Your task to perform on an android device: Clear the shopping cart on amazon.com. Search for dell xps on amazon.com, select the first entry, and add it to the cart. Image 0: 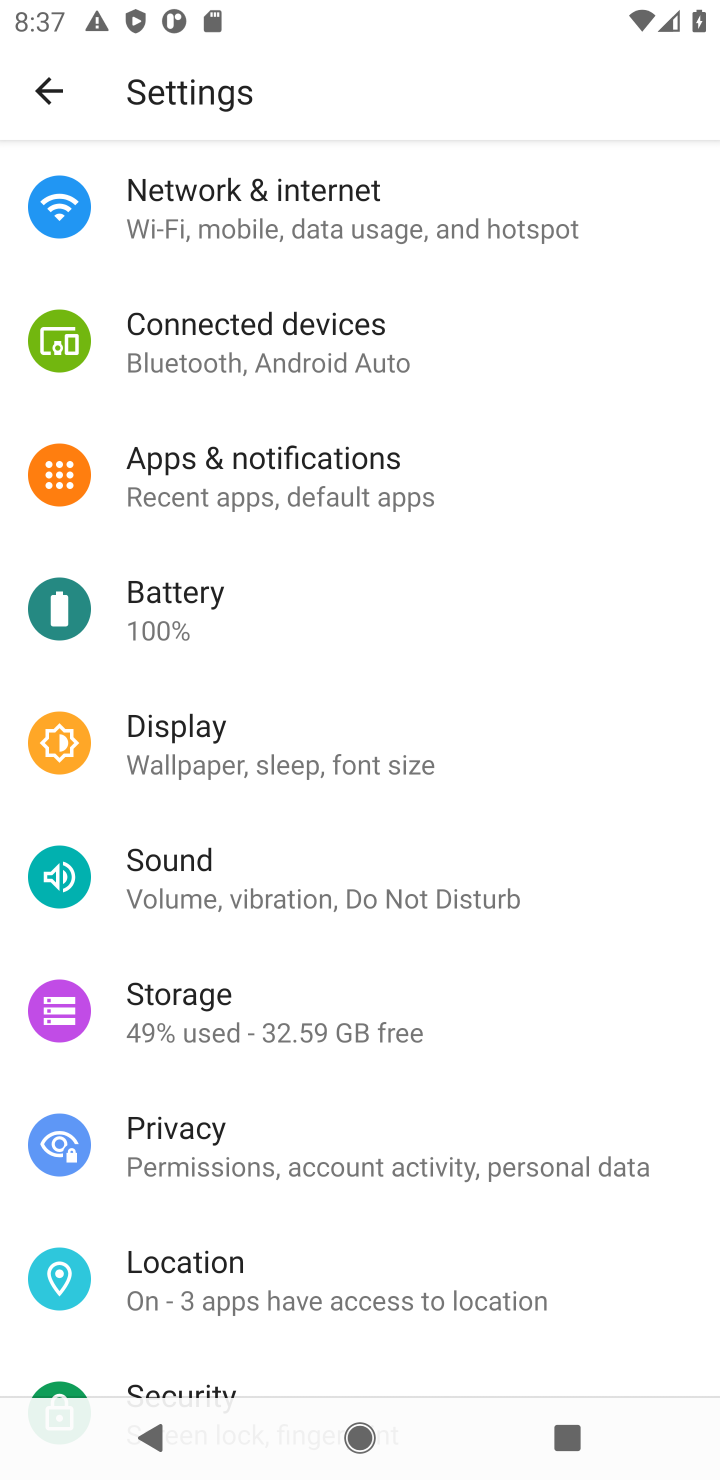
Step 0: press home button
Your task to perform on an android device: Clear the shopping cart on amazon.com. Search for dell xps on amazon.com, select the first entry, and add it to the cart. Image 1: 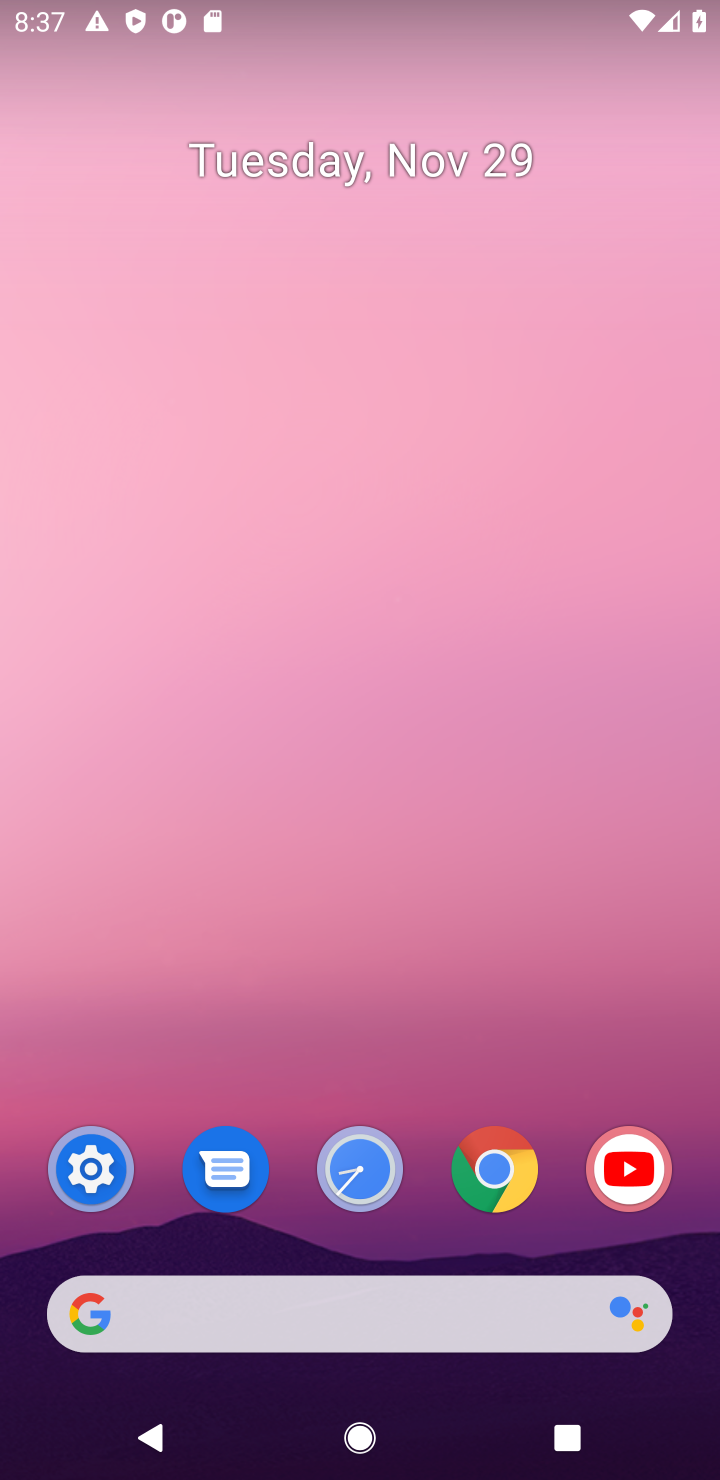
Step 1: click (465, 1310)
Your task to perform on an android device: Clear the shopping cart on amazon.com. Search for dell xps on amazon.com, select the first entry, and add it to the cart. Image 2: 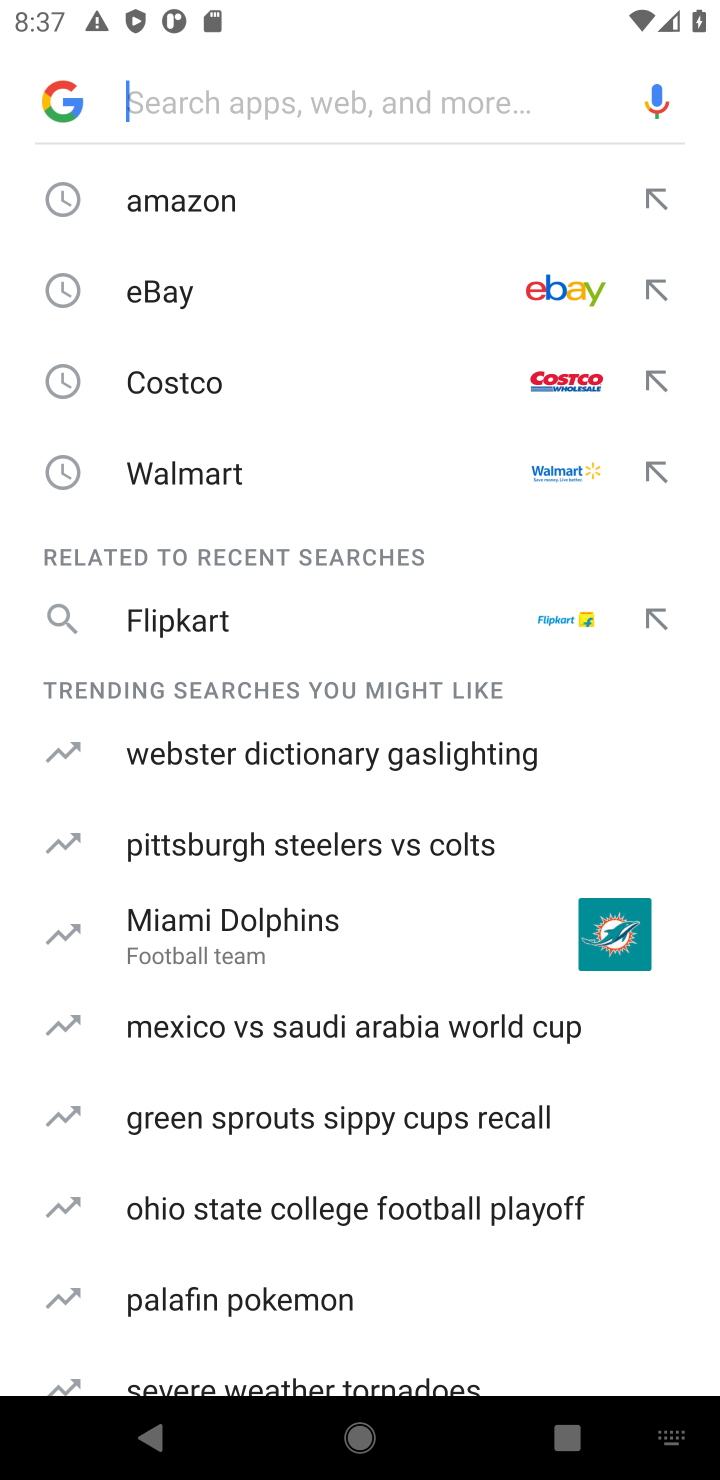
Step 2: type "amazon"
Your task to perform on an android device: Clear the shopping cart on amazon.com. Search for dell xps on amazon.com, select the first entry, and add it to the cart. Image 3: 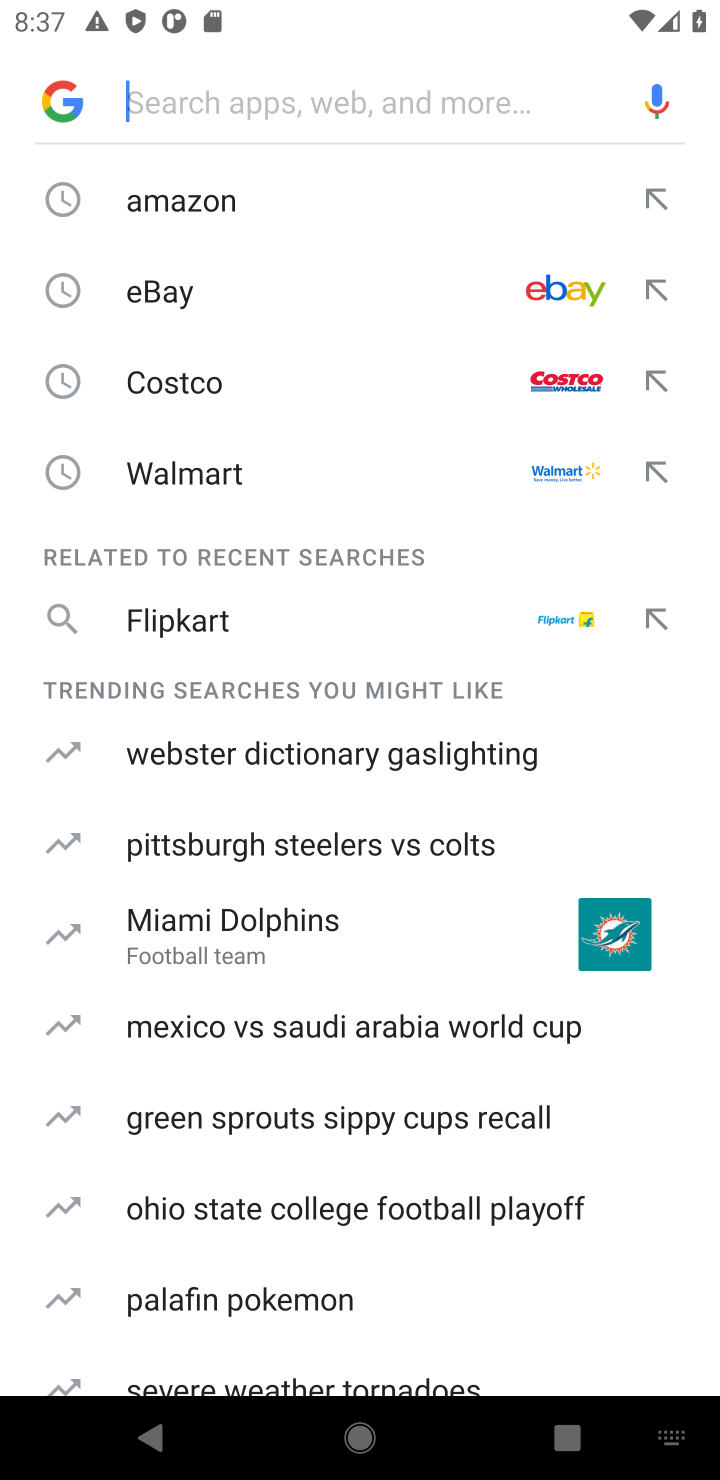
Step 3: click (230, 181)
Your task to perform on an android device: Clear the shopping cart on amazon.com. Search for dell xps on amazon.com, select the first entry, and add it to the cart. Image 4: 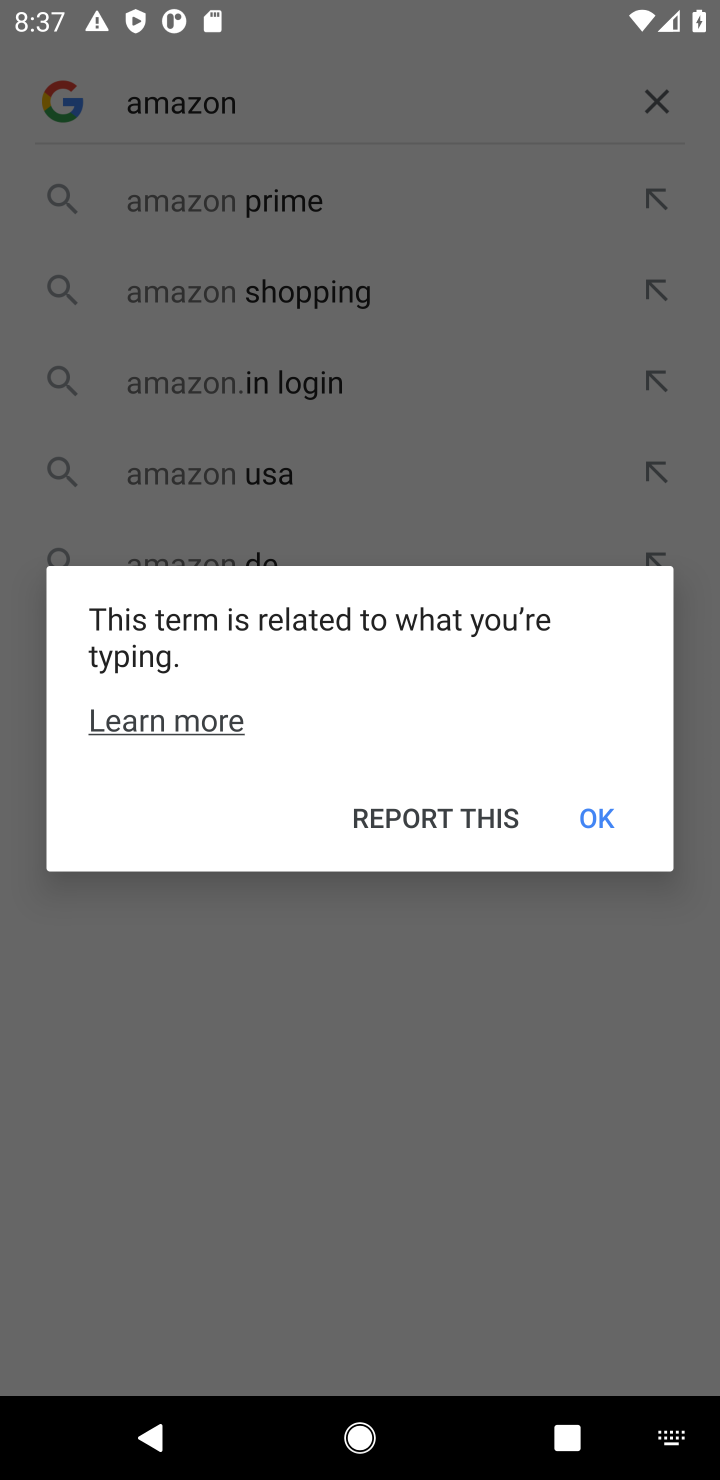
Step 4: click (580, 805)
Your task to perform on an android device: Clear the shopping cart on amazon.com. Search for dell xps on amazon.com, select the first entry, and add it to the cart. Image 5: 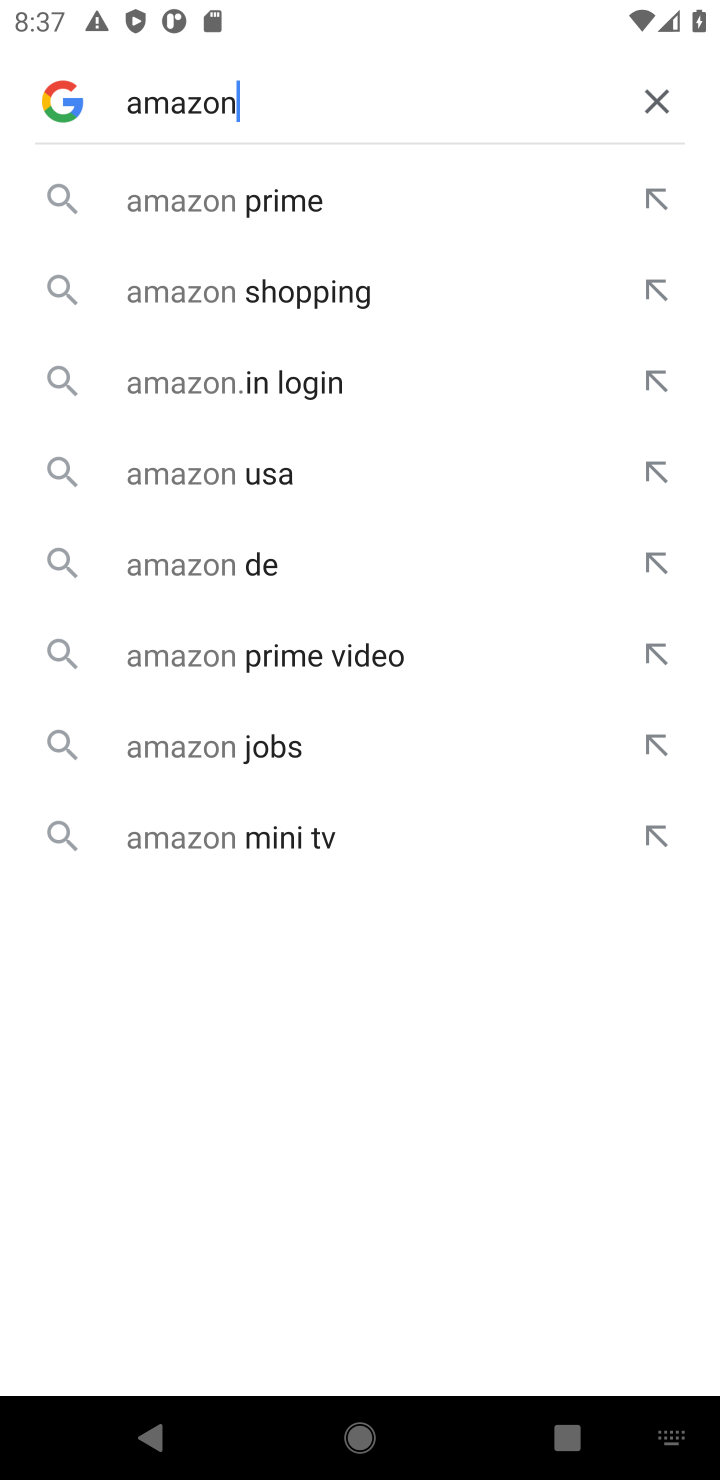
Step 5: click (215, 310)
Your task to perform on an android device: Clear the shopping cart on amazon.com. Search for dell xps on amazon.com, select the first entry, and add it to the cart. Image 6: 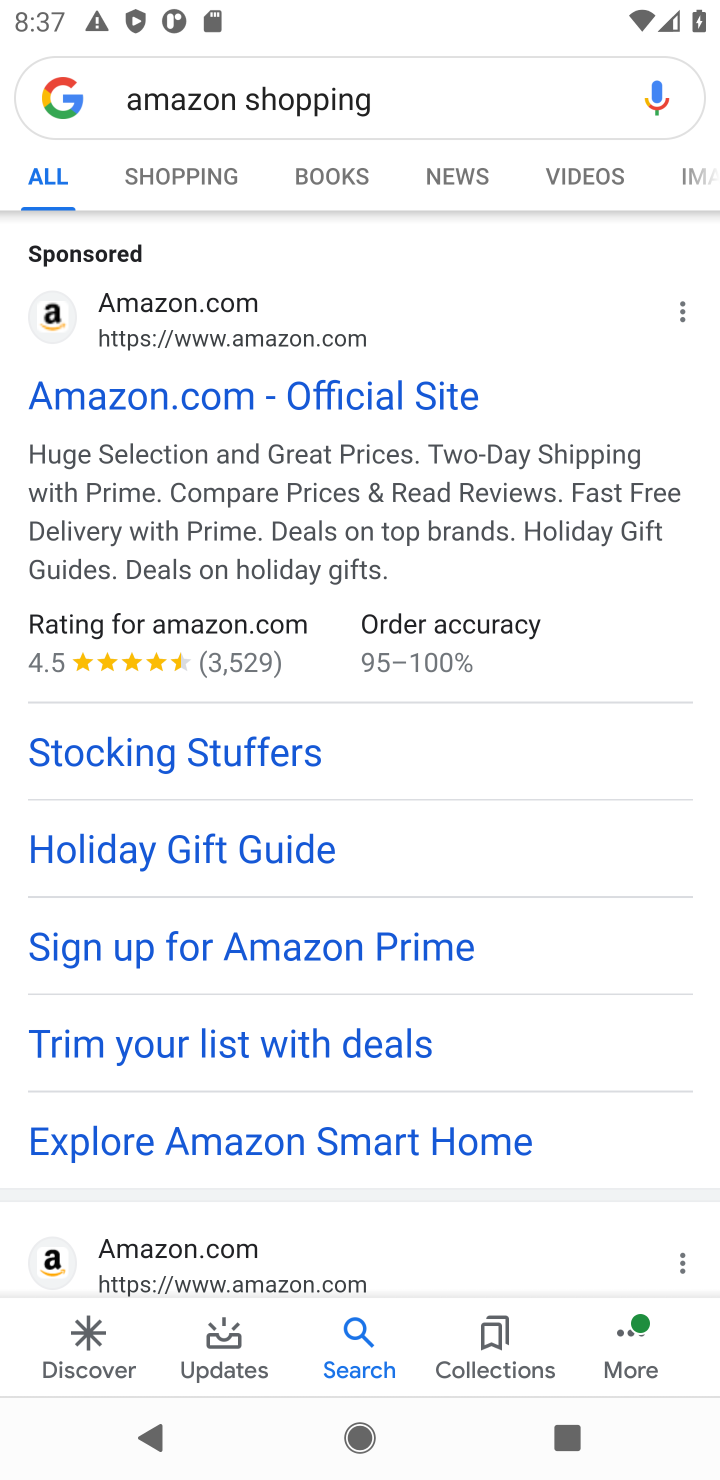
Step 6: click (193, 376)
Your task to perform on an android device: Clear the shopping cart on amazon.com. Search for dell xps on amazon.com, select the first entry, and add it to the cart. Image 7: 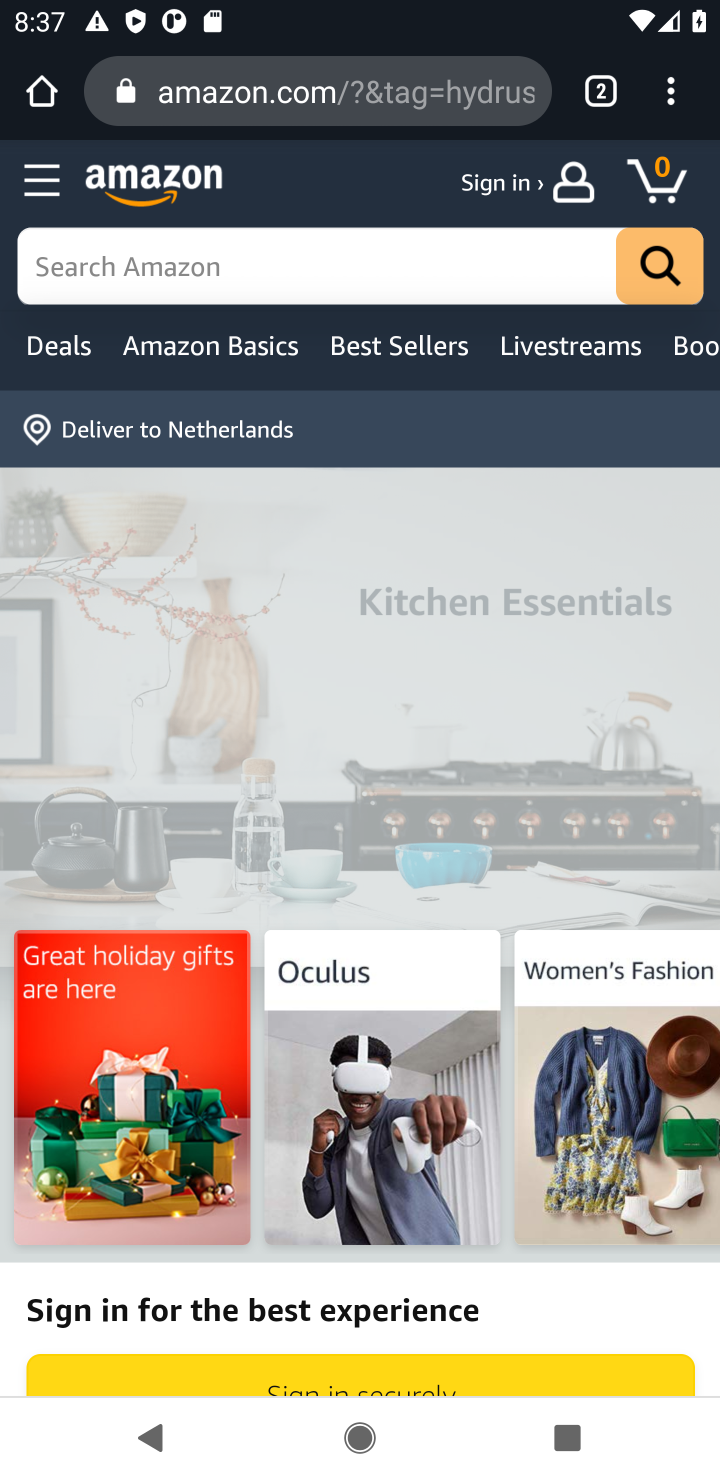
Step 7: click (303, 277)
Your task to perform on an android device: Clear the shopping cart on amazon.com. Search for dell xps on amazon.com, select the first entry, and add it to the cart. Image 8: 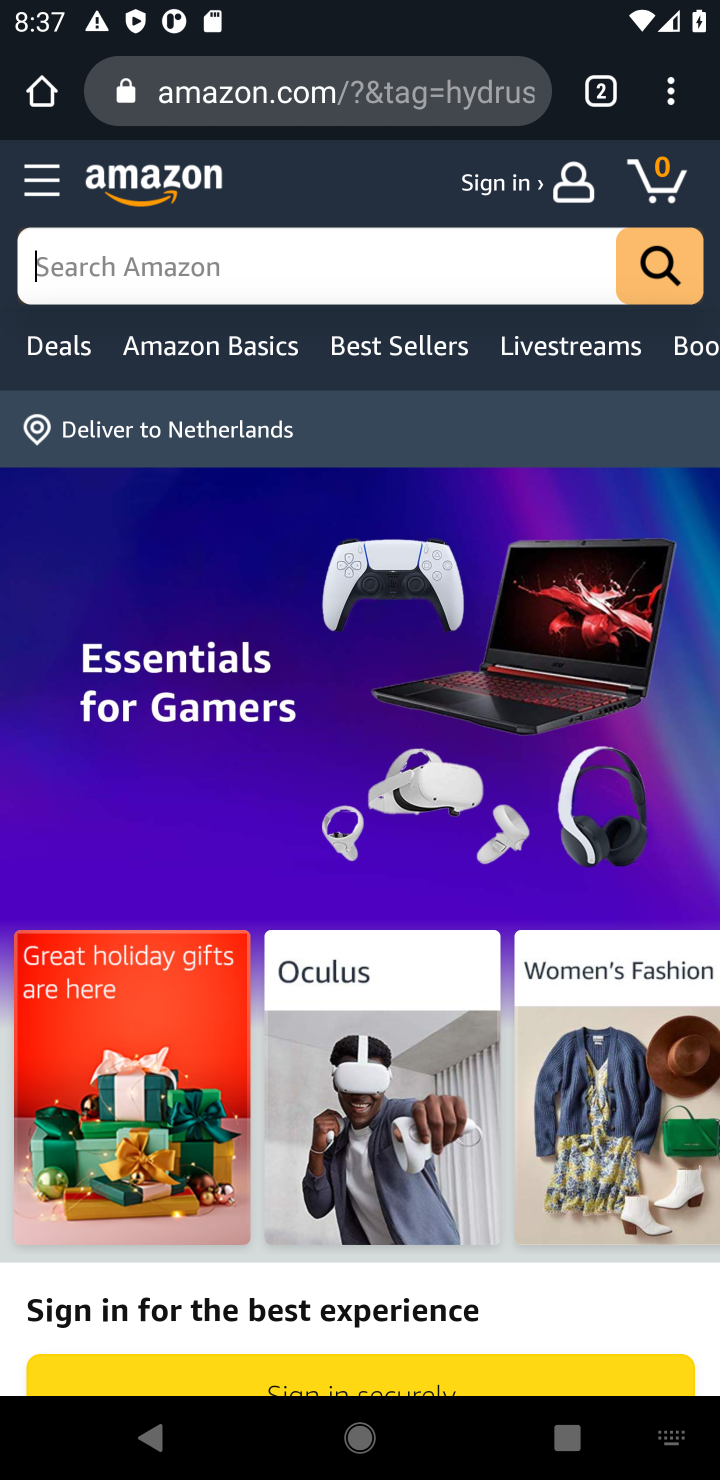
Step 8: type "dell xps"
Your task to perform on an android device: Clear the shopping cart on amazon.com. Search for dell xps on amazon.com, select the first entry, and add it to the cart. Image 9: 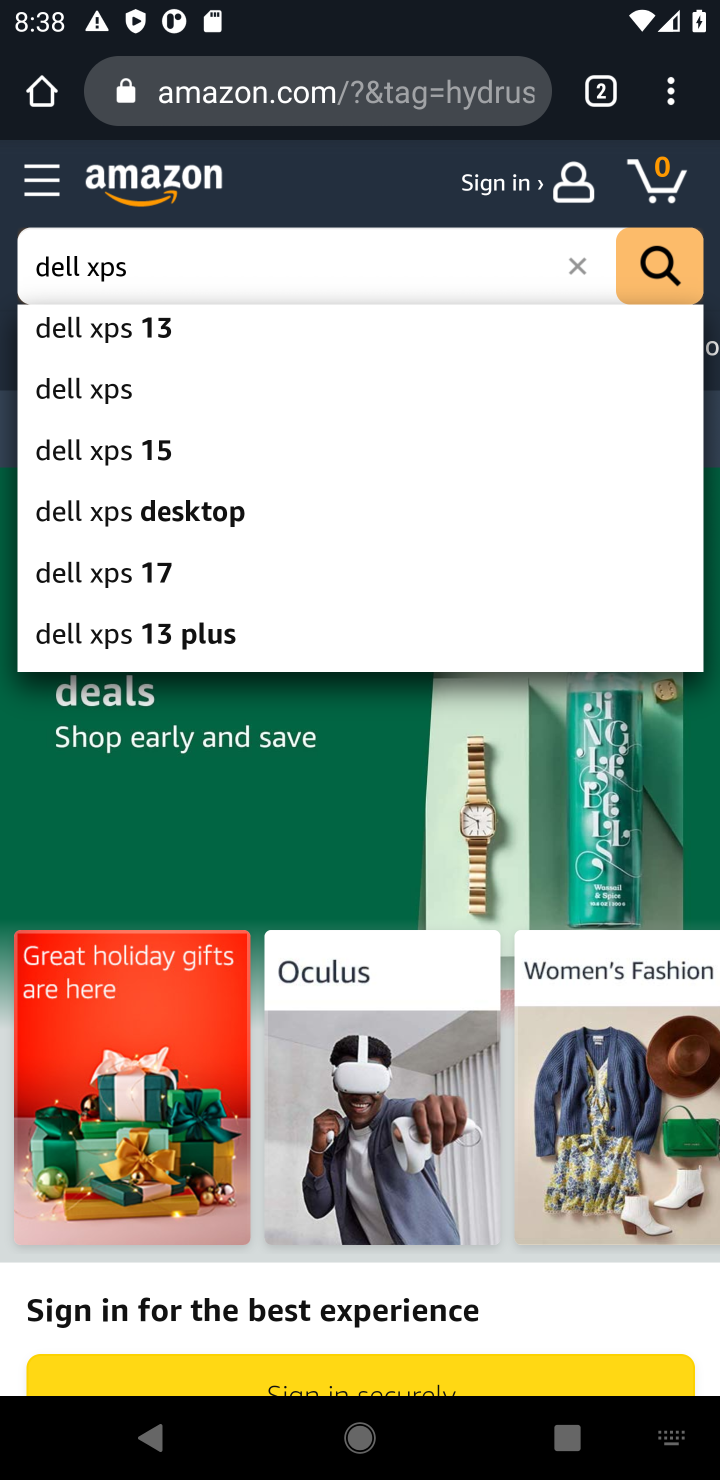
Step 9: click (98, 382)
Your task to perform on an android device: Clear the shopping cart on amazon.com. Search for dell xps on amazon.com, select the first entry, and add it to the cart. Image 10: 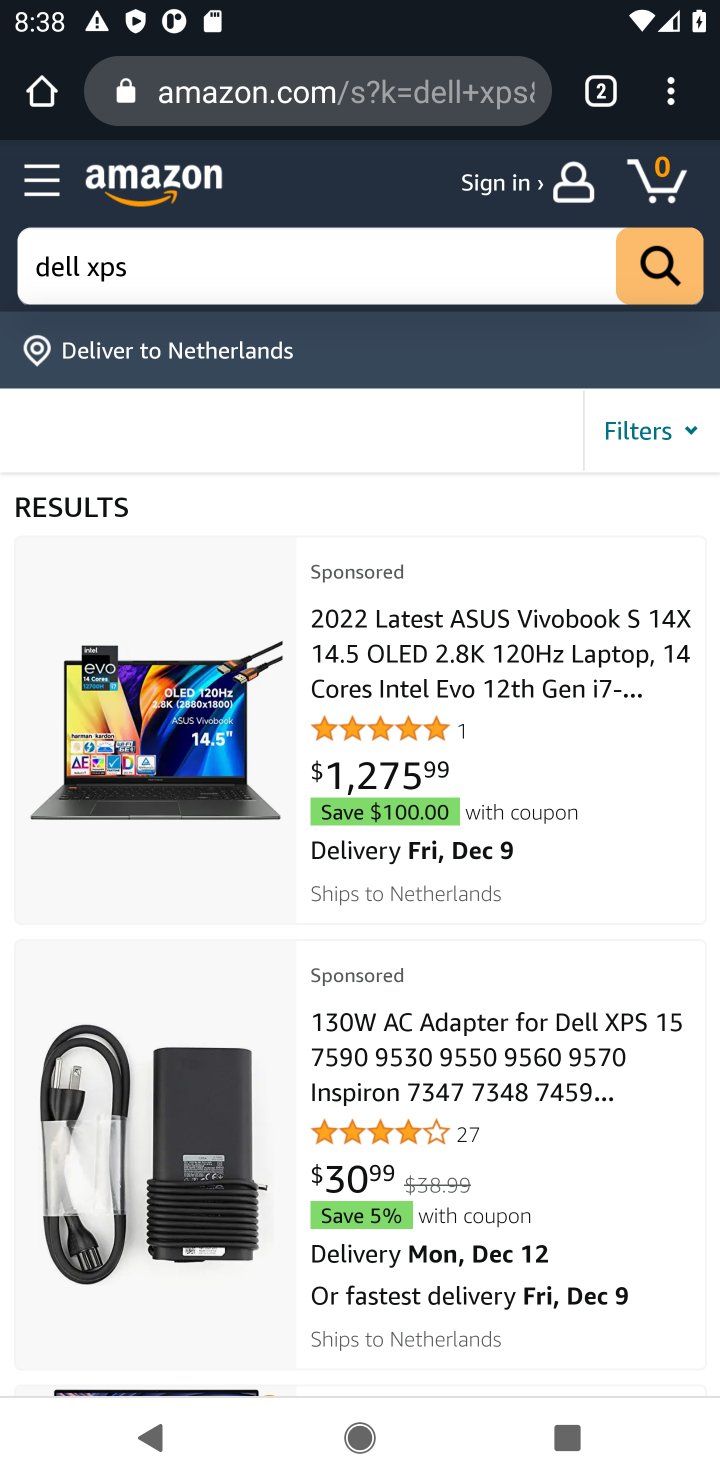
Step 10: click (314, 717)
Your task to perform on an android device: Clear the shopping cart on amazon.com. Search for dell xps on amazon.com, select the first entry, and add it to the cart. Image 11: 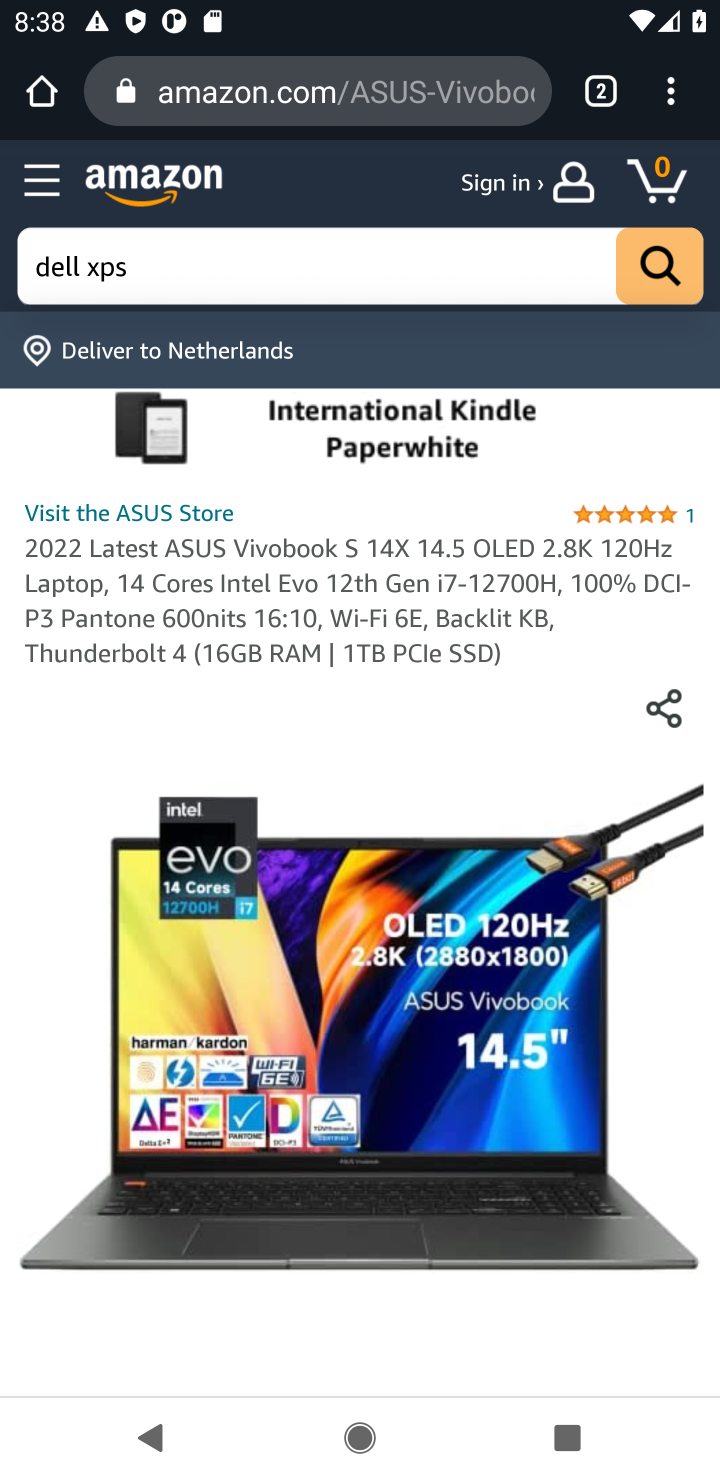
Step 11: drag from (193, 1079) to (164, 398)
Your task to perform on an android device: Clear the shopping cart on amazon.com. Search for dell xps on amazon.com, select the first entry, and add it to the cart. Image 12: 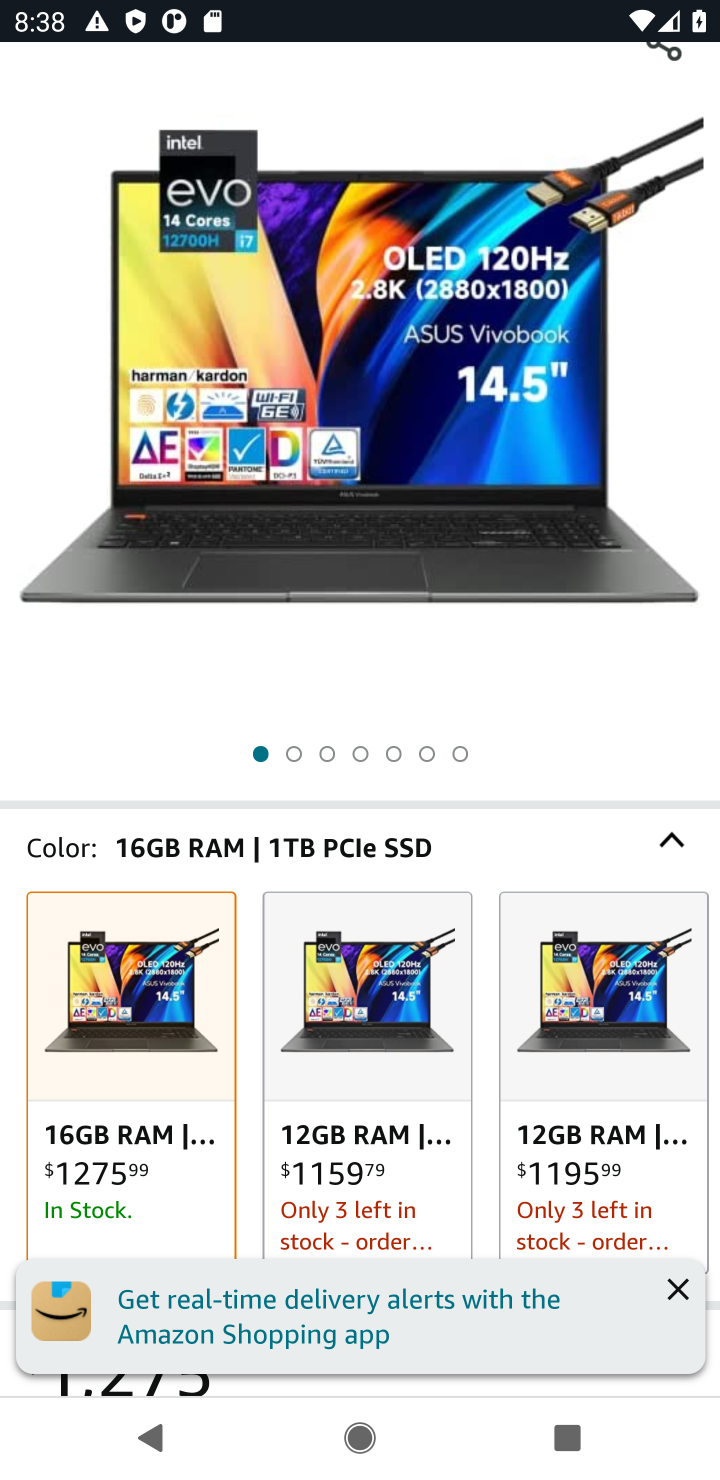
Step 12: click (685, 1308)
Your task to perform on an android device: Clear the shopping cart on amazon.com. Search for dell xps on amazon.com, select the first entry, and add it to the cart. Image 13: 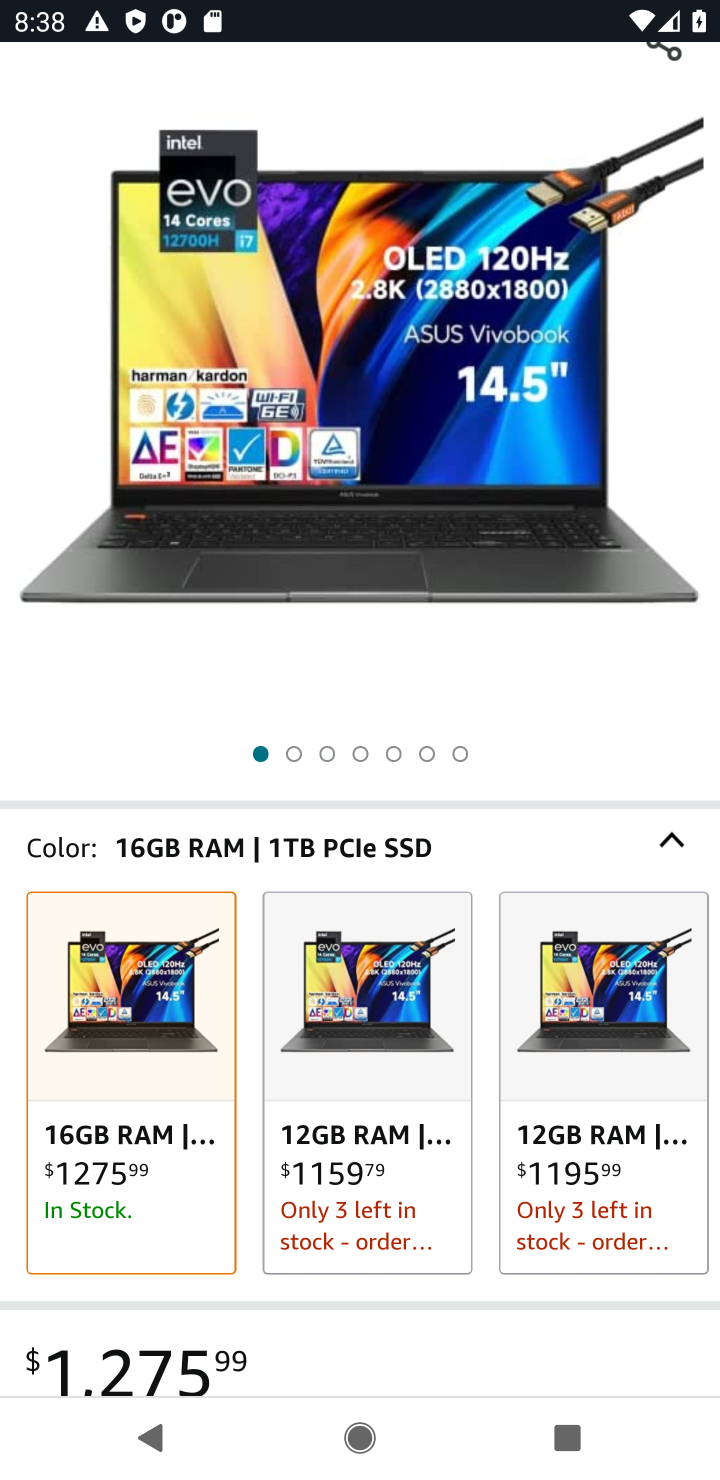
Step 13: drag from (497, 779) to (405, 109)
Your task to perform on an android device: Clear the shopping cart on amazon.com. Search for dell xps on amazon.com, select the first entry, and add it to the cart. Image 14: 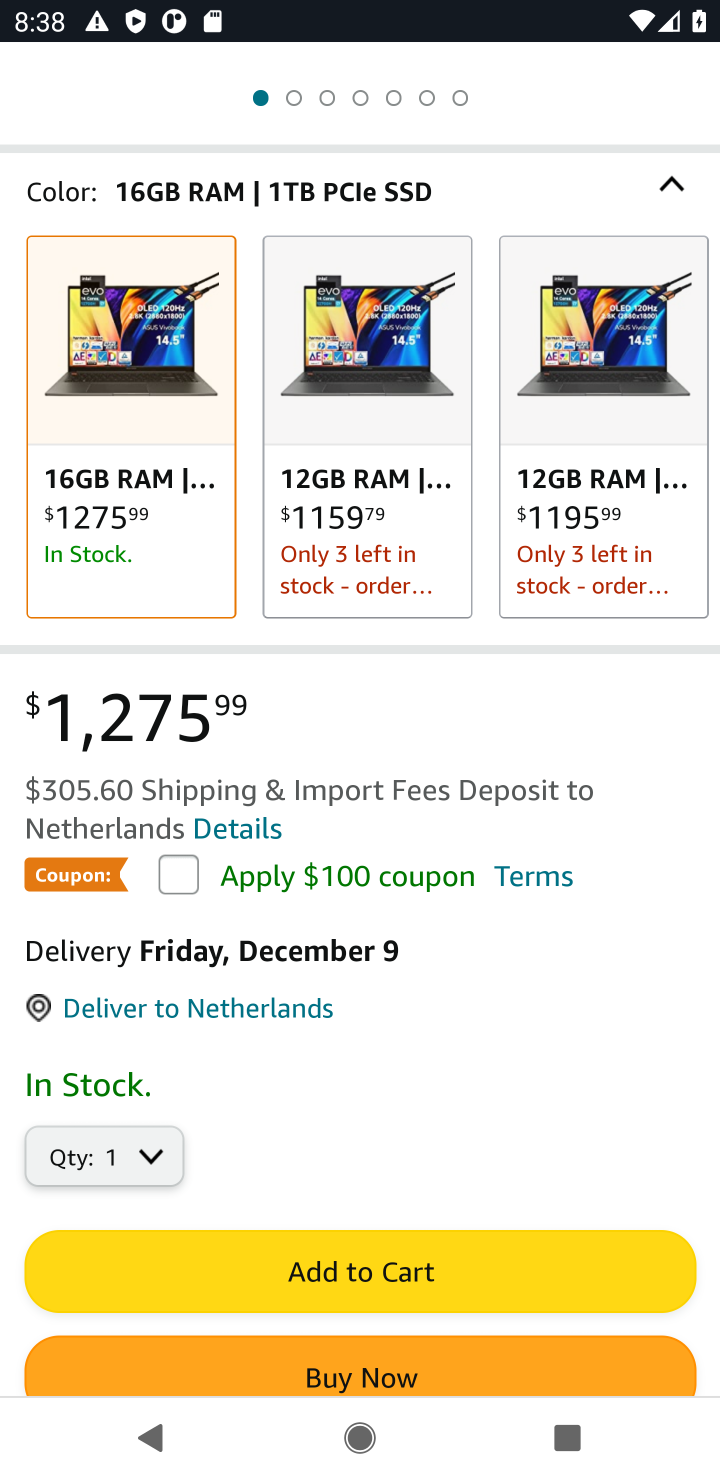
Step 14: click (437, 1251)
Your task to perform on an android device: Clear the shopping cart on amazon.com. Search for dell xps on amazon.com, select the first entry, and add it to the cart. Image 15: 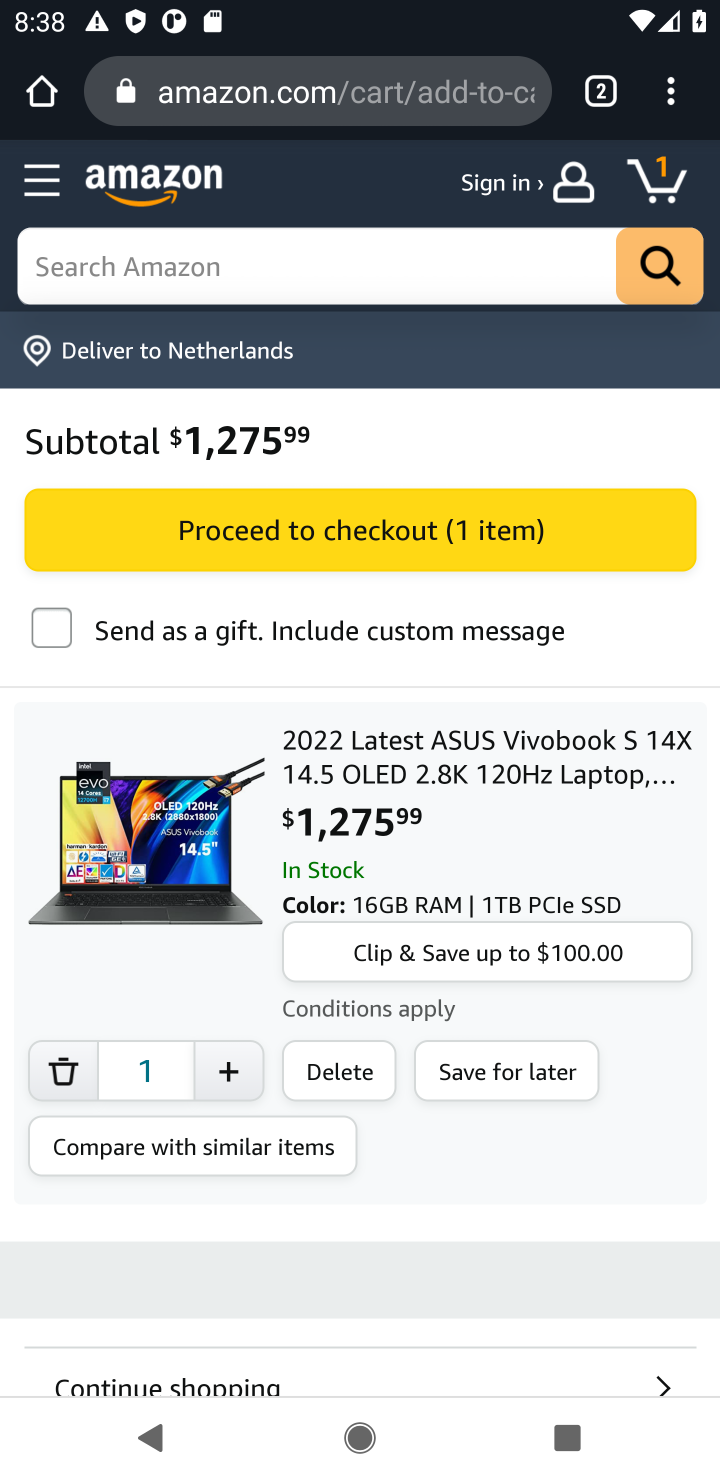
Step 15: task complete